Your task to perform on an android device: turn smart compose on in the gmail app Image 0: 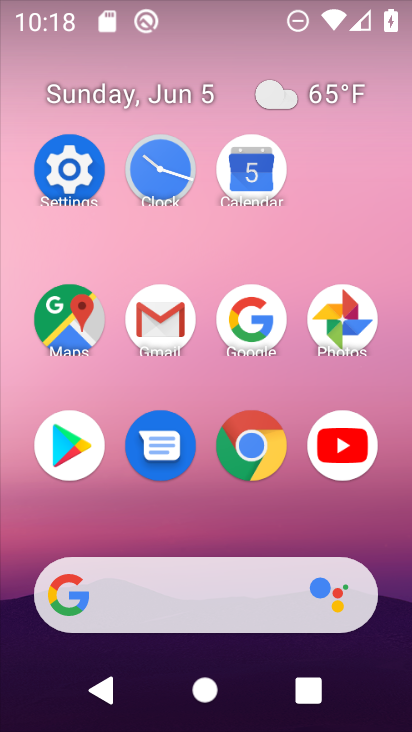
Step 0: click (183, 312)
Your task to perform on an android device: turn smart compose on in the gmail app Image 1: 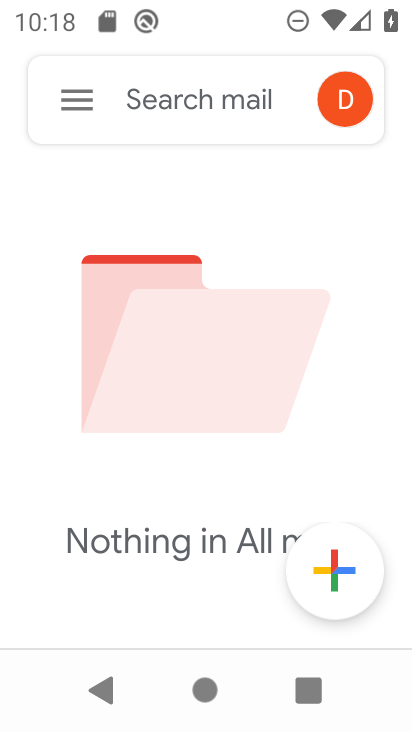
Step 1: click (96, 113)
Your task to perform on an android device: turn smart compose on in the gmail app Image 2: 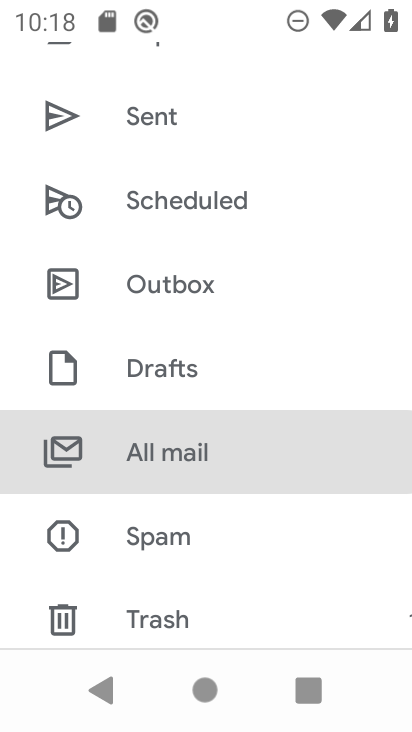
Step 2: drag from (231, 583) to (258, 235)
Your task to perform on an android device: turn smart compose on in the gmail app Image 3: 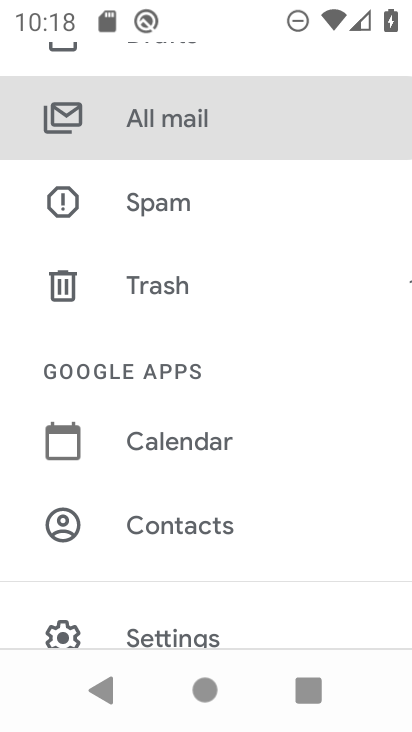
Step 3: click (207, 624)
Your task to perform on an android device: turn smart compose on in the gmail app Image 4: 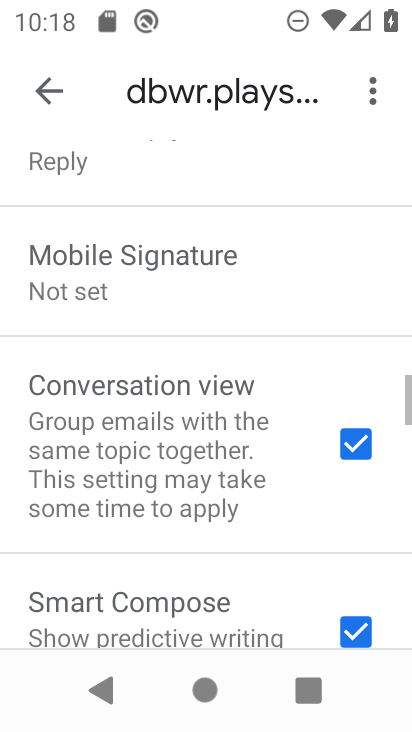
Step 4: task complete